Your task to perform on an android device: move an email to a new category in the gmail app Image 0: 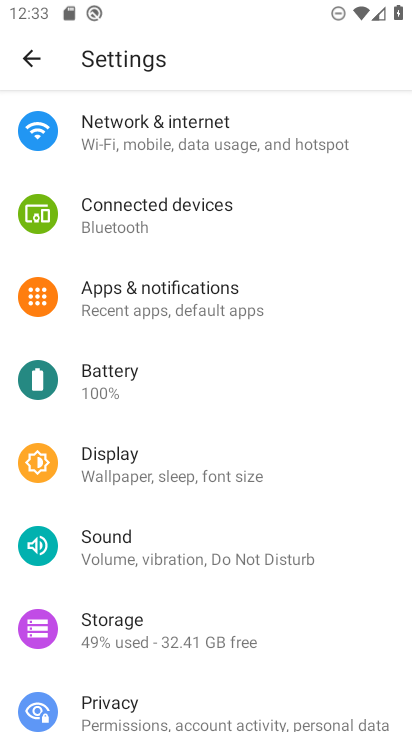
Step 0: press home button
Your task to perform on an android device: move an email to a new category in the gmail app Image 1: 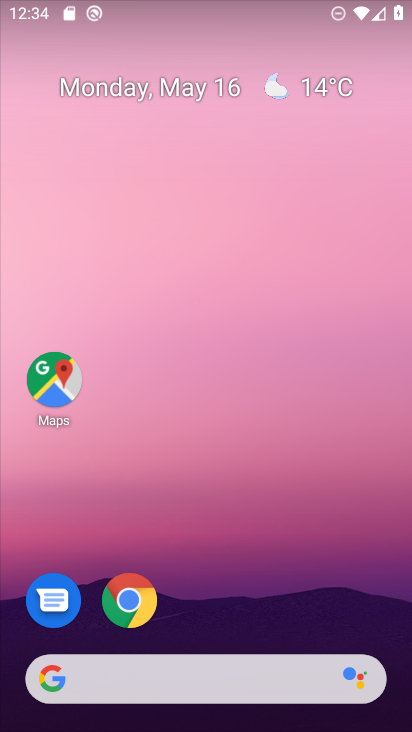
Step 1: drag from (222, 640) to (224, 85)
Your task to perform on an android device: move an email to a new category in the gmail app Image 2: 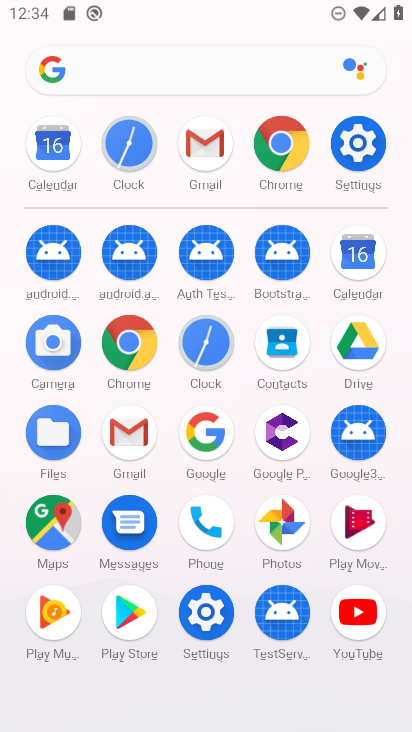
Step 2: click (202, 132)
Your task to perform on an android device: move an email to a new category in the gmail app Image 3: 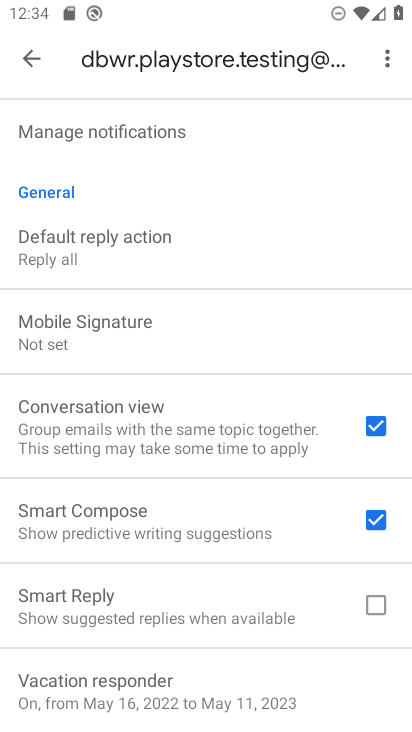
Step 3: drag from (215, 151) to (208, 615)
Your task to perform on an android device: move an email to a new category in the gmail app Image 4: 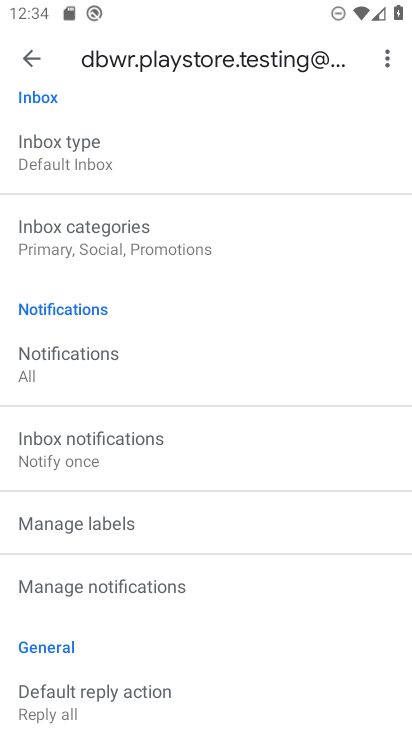
Step 4: click (29, 53)
Your task to perform on an android device: move an email to a new category in the gmail app Image 5: 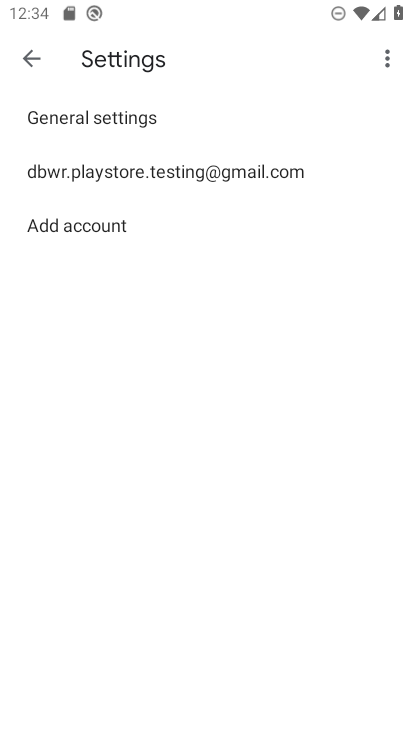
Step 5: click (31, 55)
Your task to perform on an android device: move an email to a new category in the gmail app Image 6: 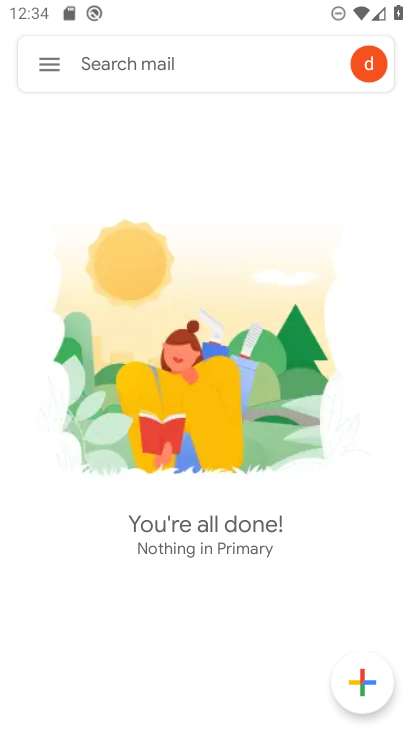
Step 6: task complete